Your task to perform on an android device: Open the map Image 0: 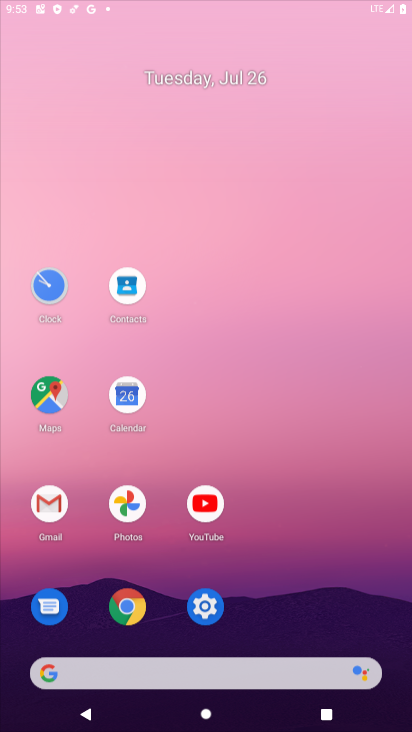
Step 0: click (199, 602)
Your task to perform on an android device: Open the map Image 1: 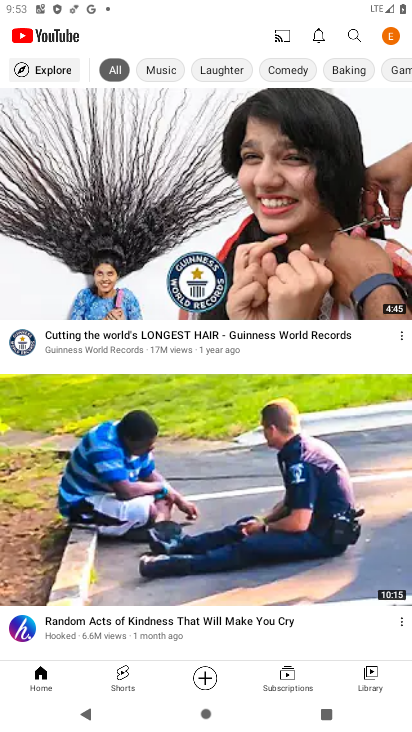
Step 1: press home button
Your task to perform on an android device: Open the map Image 2: 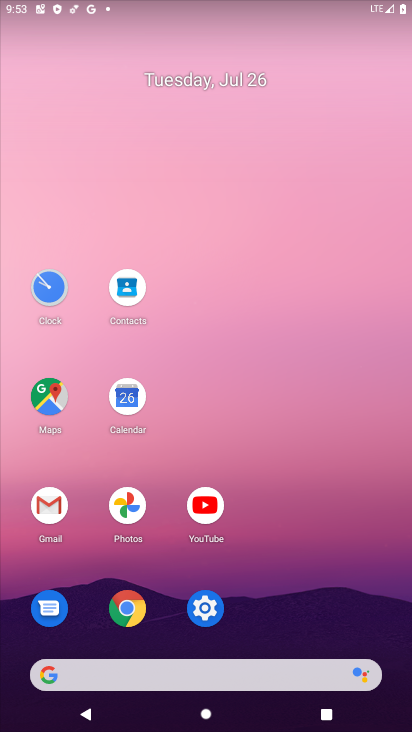
Step 2: click (48, 397)
Your task to perform on an android device: Open the map Image 3: 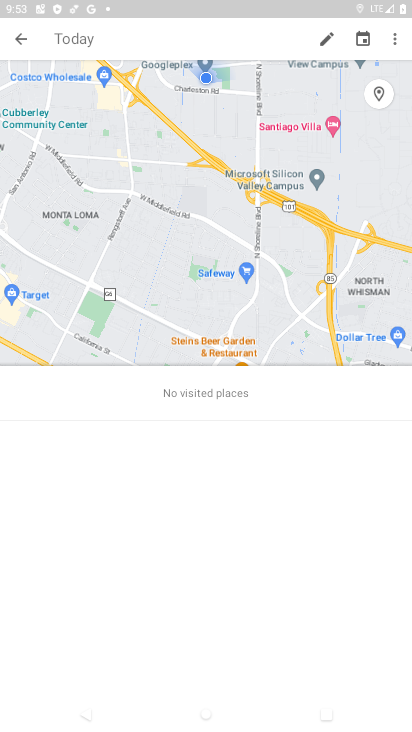
Step 3: click (19, 37)
Your task to perform on an android device: Open the map Image 4: 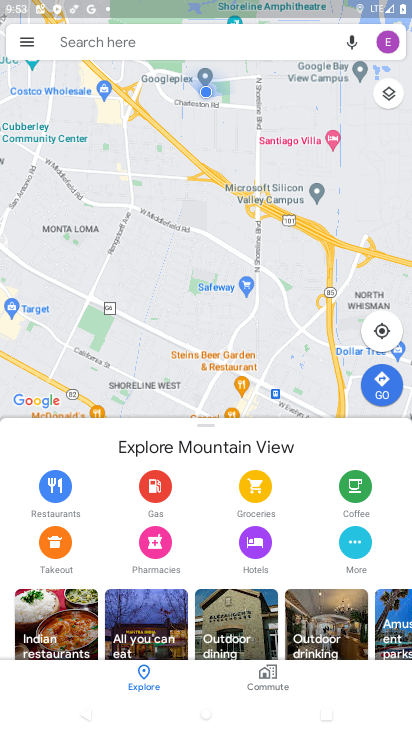
Step 4: task complete